Your task to perform on an android device: Open Google Chrome and click the shortcut for Amazon.com Image 0: 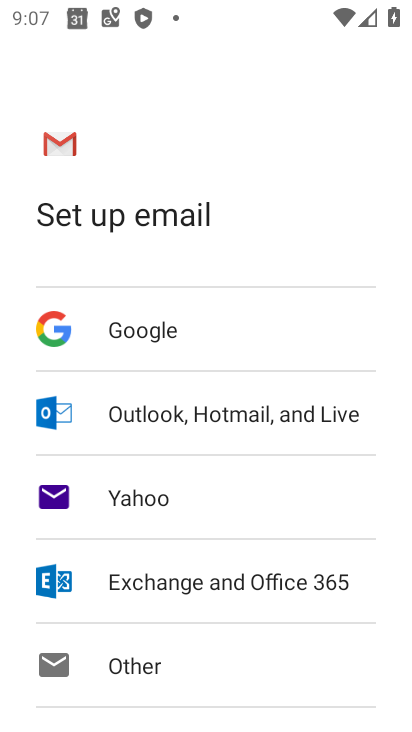
Step 0: press back button
Your task to perform on an android device: Open Google Chrome and click the shortcut for Amazon.com Image 1: 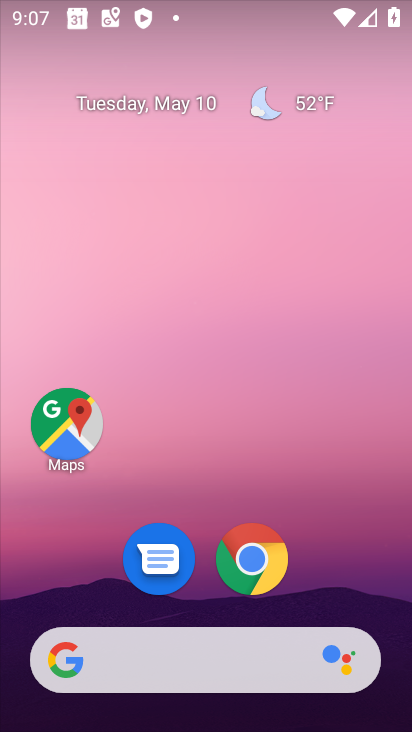
Step 1: drag from (369, 609) to (254, 48)
Your task to perform on an android device: Open Google Chrome and click the shortcut for Amazon.com Image 2: 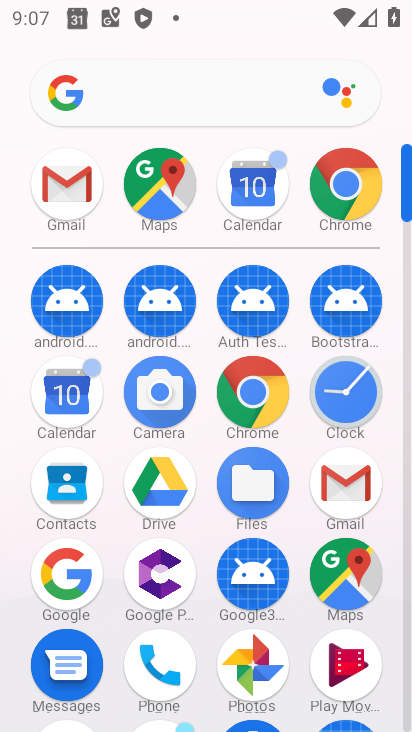
Step 2: click (251, 390)
Your task to perform on an android device: Open Google Chrome and click the shortcut for Amazon.com Image 3: 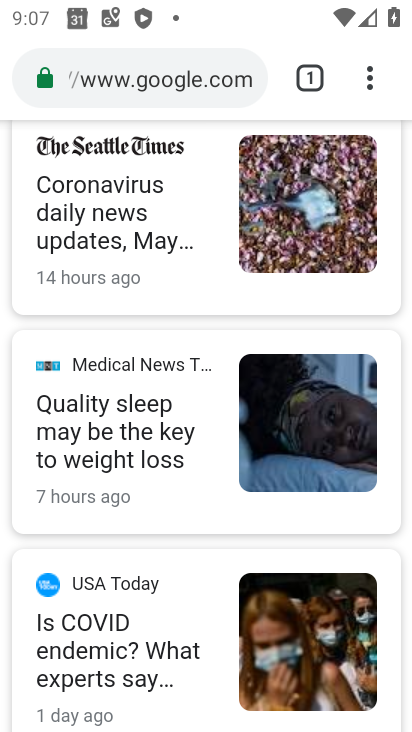
Step 3: drag from (180, 189) to (152, 662)
Your task to perform on an android device: Open Google Chrome and click the shortcut for Amazon.com Image 4: 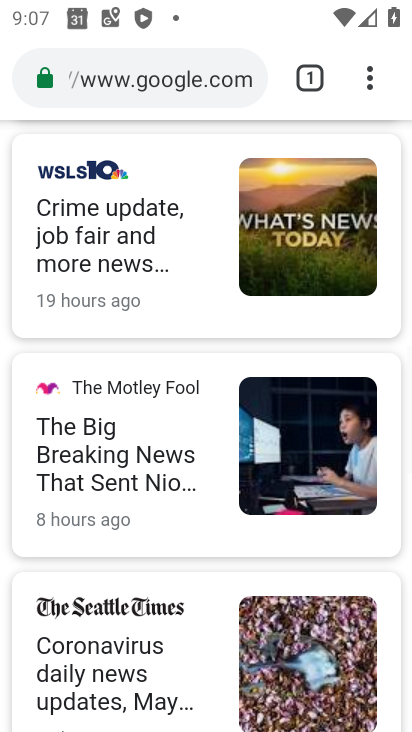
Step 4: drag from (113, 268) to (88, 681)
Your task to perform on an android device: Open Google Chrome and click the shortcut for Amazon.com Image 5: 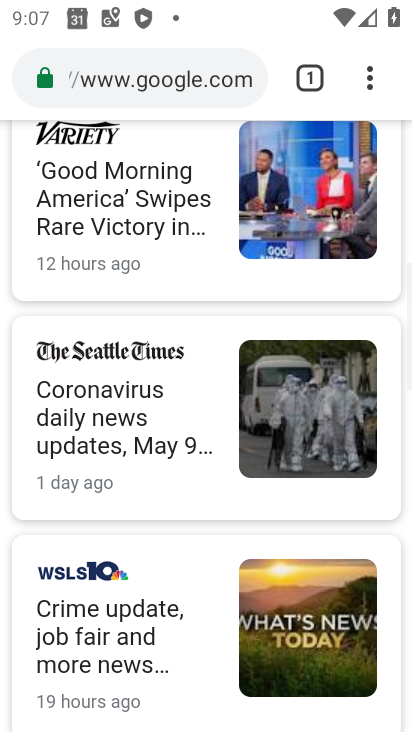
Step 5: drag from (124, 260) to (127, 679)
Your task to perform on an android device: Open Google Chrome and click the shortcut for Amazon.com Image 6: 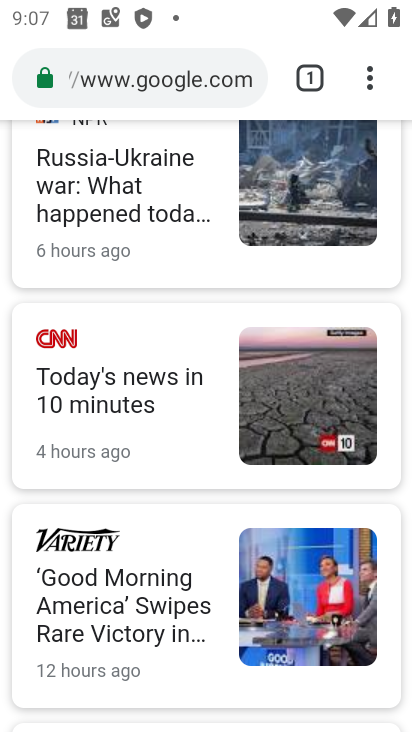
Step 6: drag from (165, 237) to (125, 696)
Your task to perform on an android device: Open Google Chrome and click the shortcut for Amazon.com Image 7: 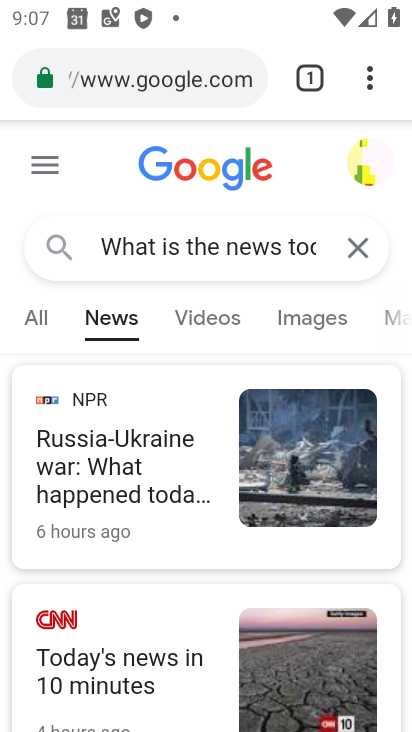
Step 7: click (54, 310)
Your task to perform on an android device: Open Google Chrome and click the shortcut for Amazon.com Image 8: 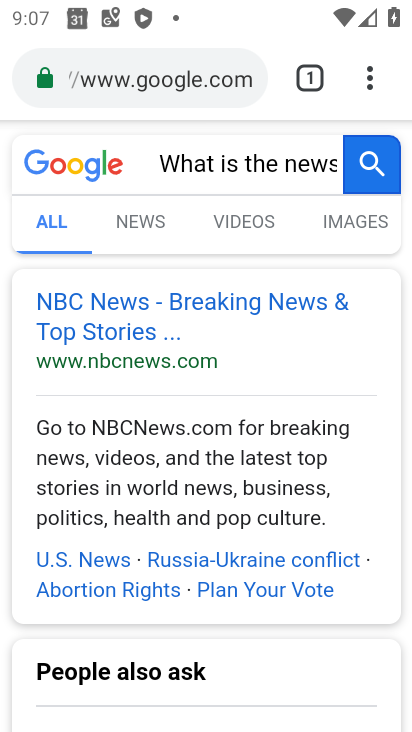
Step 8: press back button
Your task to perform on an android device: Open Google Chrome and click the shortcut for Amazon.com Image 9: 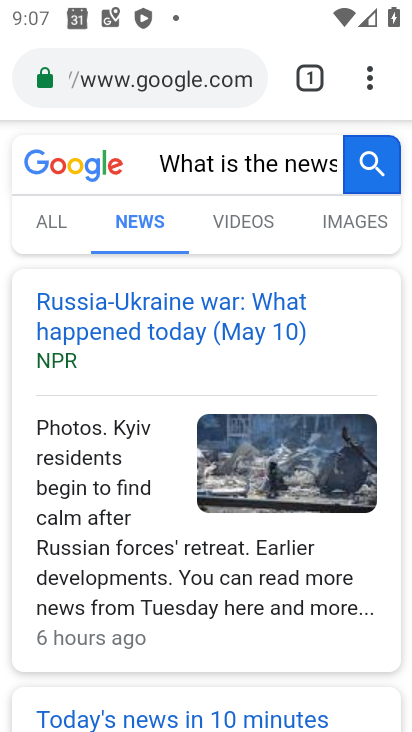
Step 9: press back button
Your task to perform on an android device: Open Google Chrome and click the shortcut for Amazon.com Image 10: 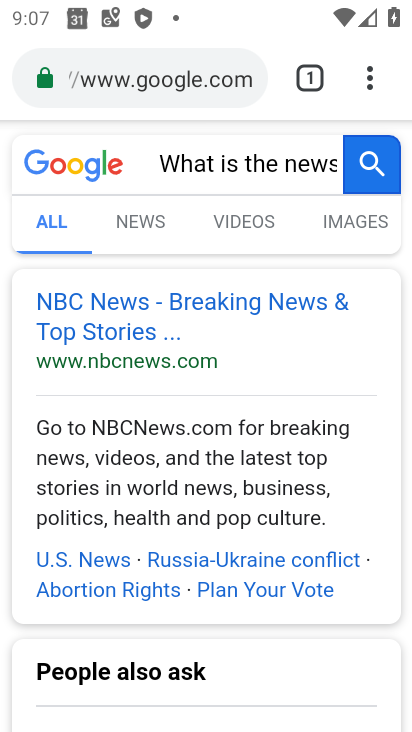
Step 10: press back button
Your task to perform on an android device: Open Google Chrome and click the shortcut for Amazon.com Image 11: 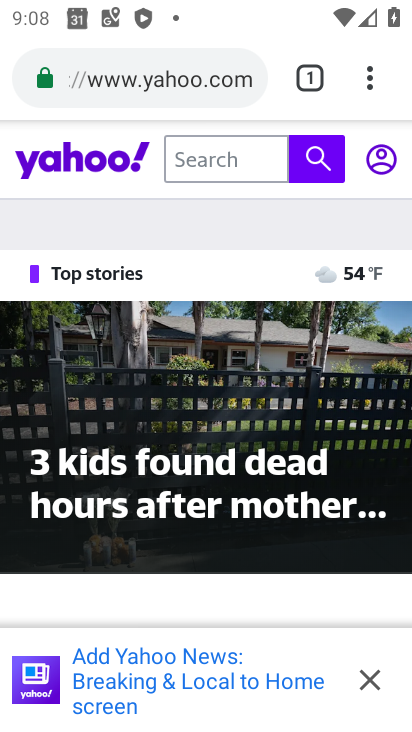
Step 11: press back button
Your task to perform on an android device: Open Google Chrome and click the shortcut for Amazon.com Image 12: 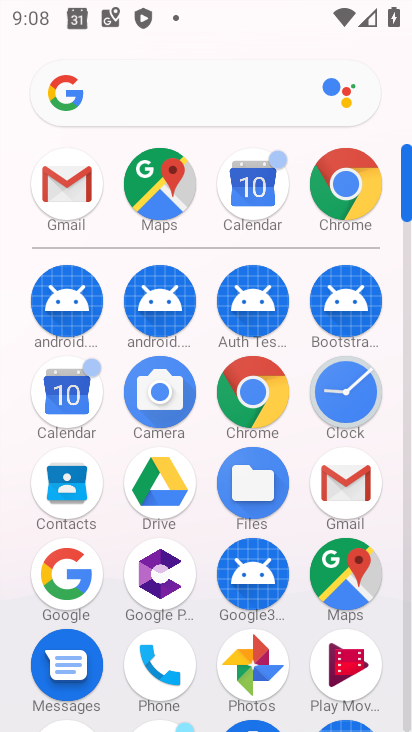
Step 12: click (350, 180)
Your task to perform on an android device: Open Google Chrome and click the shortcut for Amazon.com Image 13: 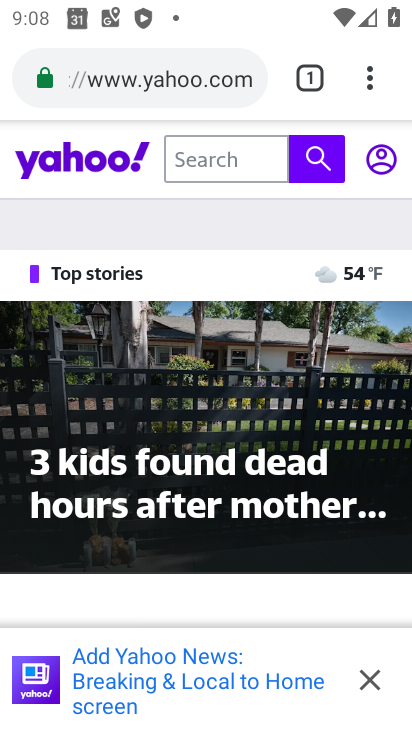
Step 13: drag from (364, 65) to (127, 153)
Your task to perform on an android device: Open Google Chrome and click the shortcut for Amazon.com Image 14: 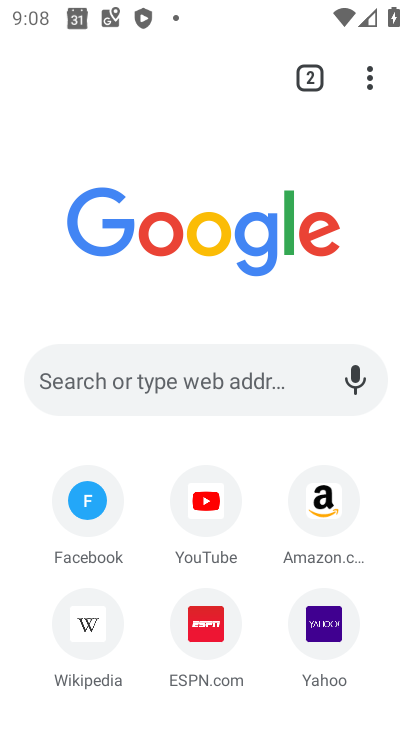
Step 14: click (323, 493)
Your task to perform on an android device: Open Google Chrome and click the shortcut for Amazon.com Image 15: 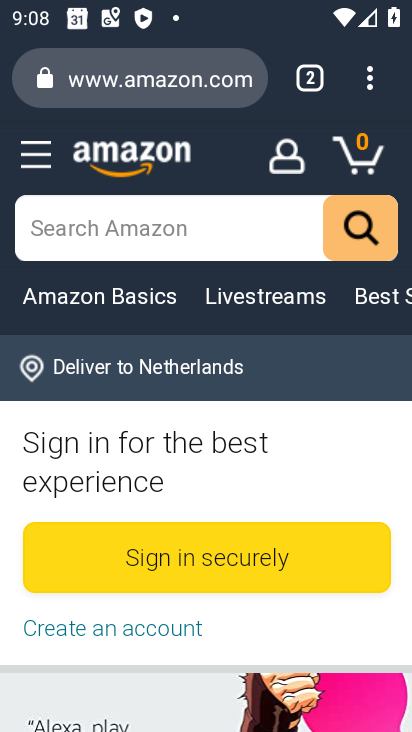
Step 15: drag from (368, 80) to (183, 466)
Your task to perform on an android device: Open Google Chrome and click the shortcut for Amazon.com Image 16: 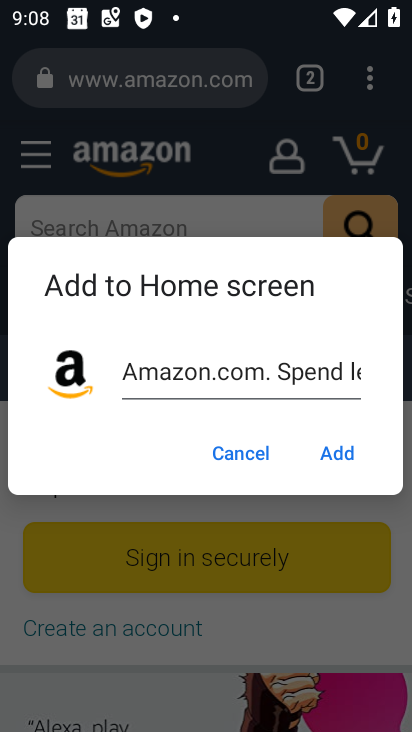
Step 16: click (356, 446)
Your task to perform on an android device: Open Google Chrome and click the shortcut for Amazon.com Image 17: 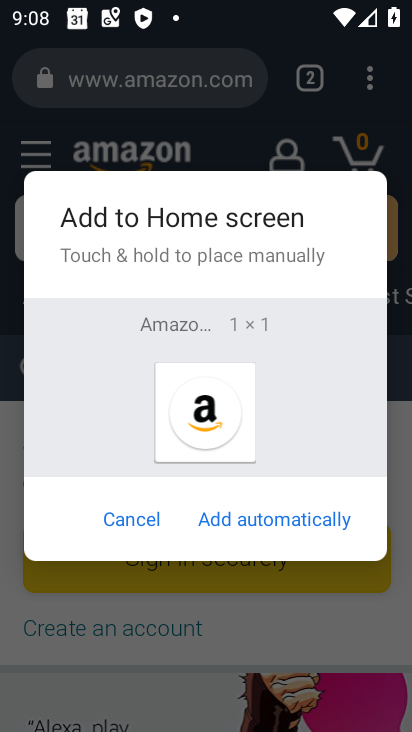
Step 17: click (332, 530)
Your task to perform on an android device: Open Google Chrome and click the shortcut for Amazon.com Image 18: 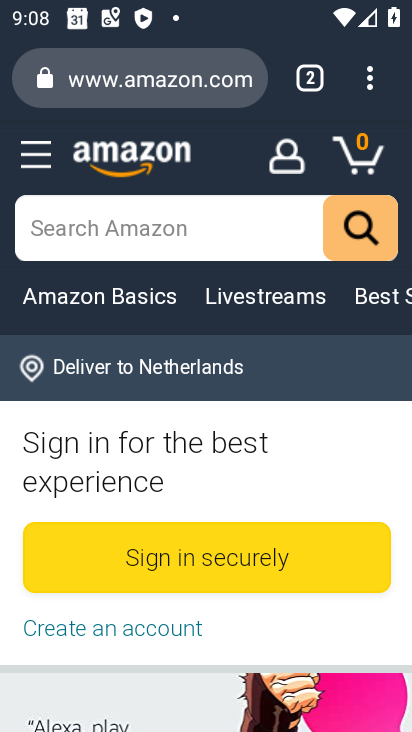
Step 18: task complete